Your task to perform on an android device: Search for Italian restaurants on Maps Image 0: 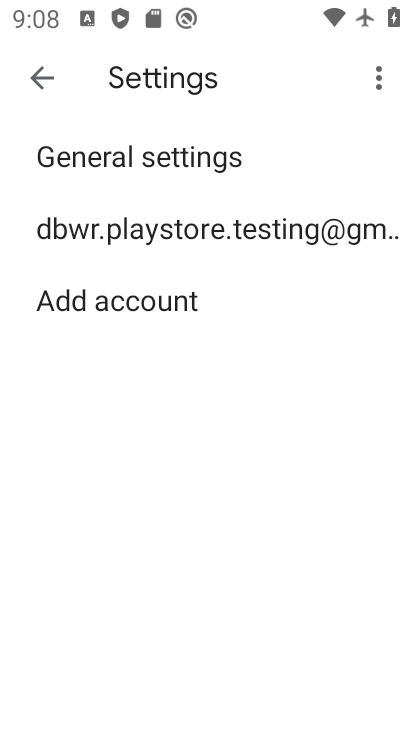
Step 0: press home button
Your task to perform on an android device: Search for Italian restaurants on Maps Image 1: 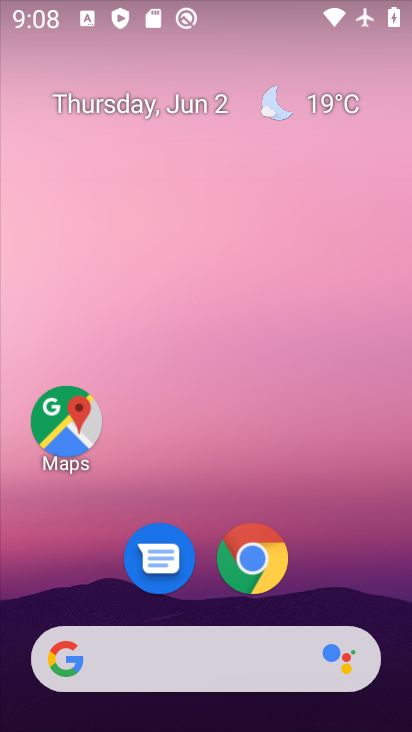
Step 1: click (67, 423)
Your task to perform on an android device: Search for Italian restaurants on Maps Image 2: 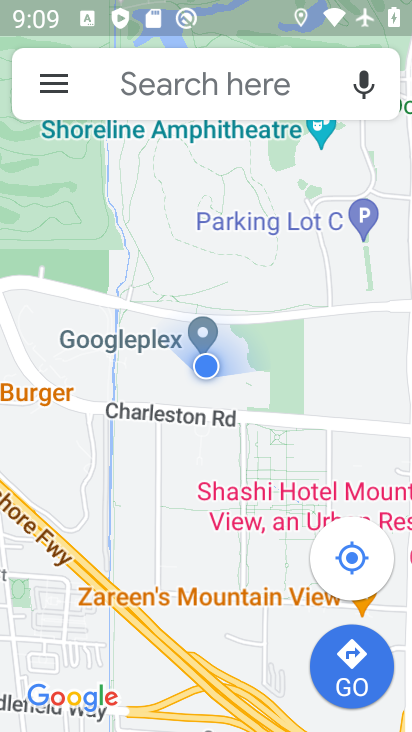
Step 2: click (196, 89)
Your task to perform on an android device: Search for Italian restaurants on Maps Image 3: 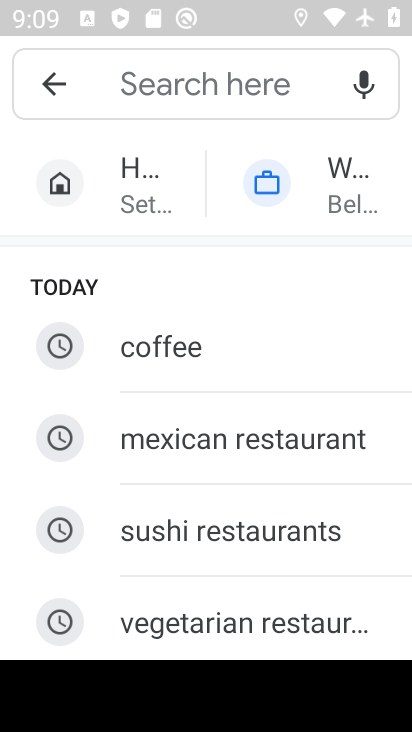
Step 3: type "italian restaurants"
Your task to perform on an android device: Search for Italian restaurants on Maps Image 4: 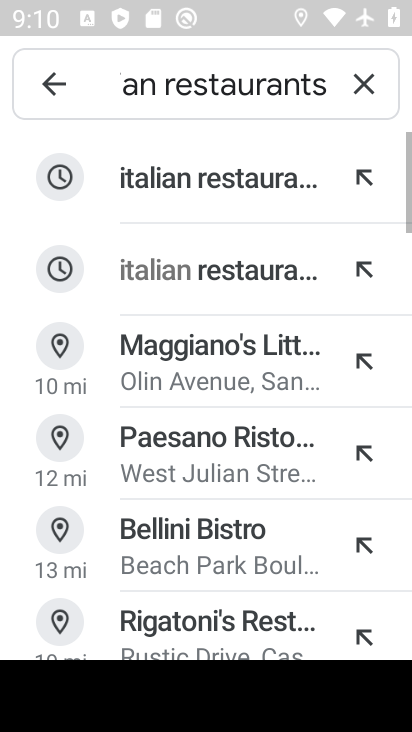
Step 4: click (159, 170)
Your task to perform on an android device: Search for Italian restaurants on Maps Image 5: 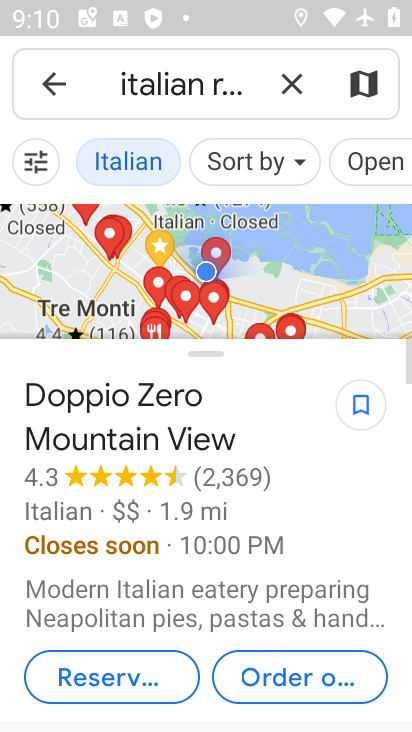
Step 5: task complete